Your task to perform on an android device: open chrome and create a bookmark for the current page Image 0: 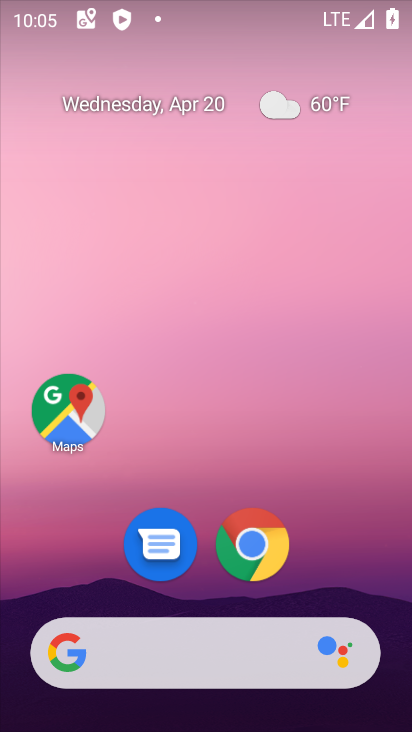
Step 0: drag from (360, 585) to (306, 98)
Your task to perform on an android device: open chrome and create a bookmark for the current page Image 1: 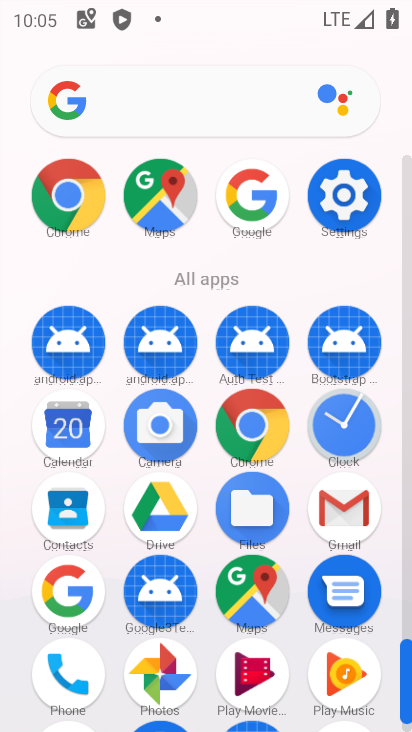
Step 1: click (79, 194)
Your task to perform on an android device: open chrome and create a bookmark for the current page Image 2: 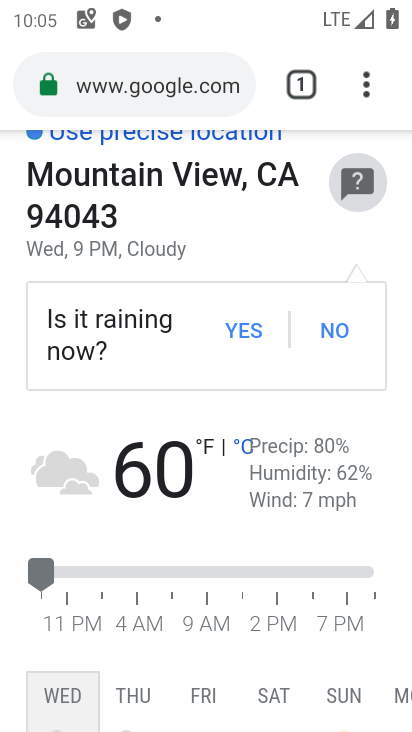
Step 2: click (370, 85)
Your task to perform on an android device: open chrome and create a bookmark for the current page Image 3: 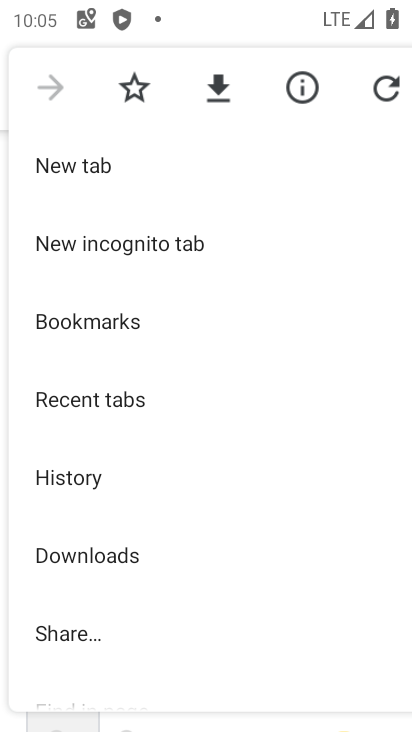
Step 3: click (138, 95)
Your task to perform on an android device: open chrome and create a bookmark for the current page Image 4: 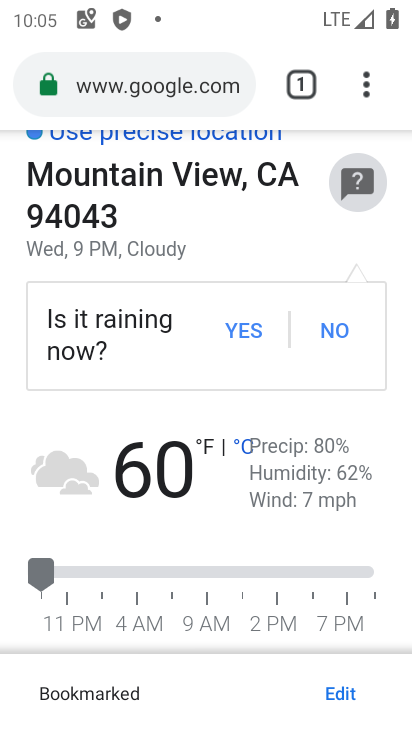
Step 4: task complete